Your task to perform on an android device: Open network settings Image 0: 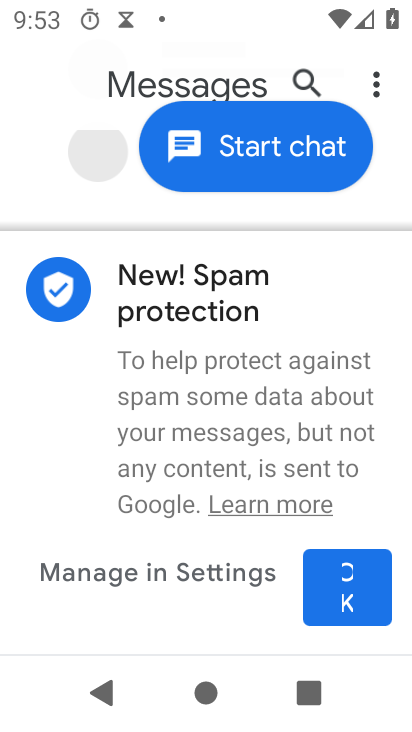
Step 0: press home button
Your task to perform on an android device: Open network settings Image 1: 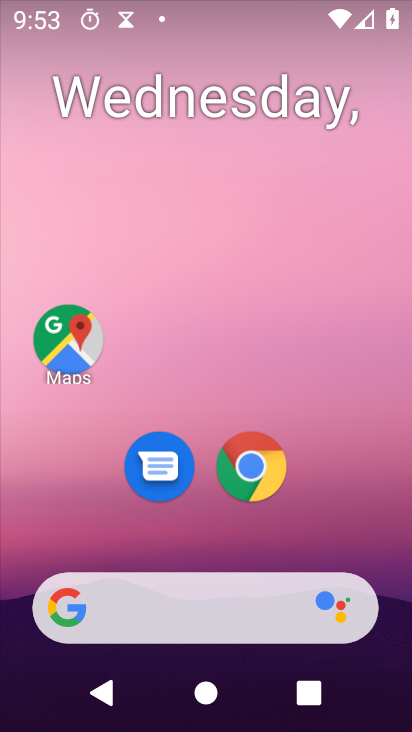
Step 1: drag from (243, 553) to (191, 44)
Your task to perform on an android device: Open network settings Image 2: 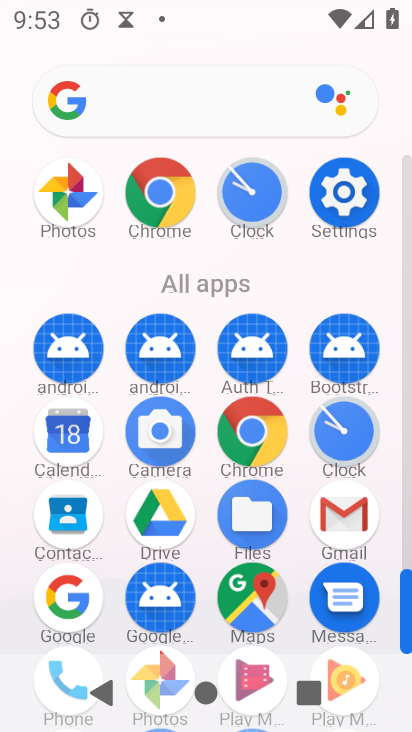
Step 2: click (340, 195)
Your task to perform on an android device: Open network settings Image 3: 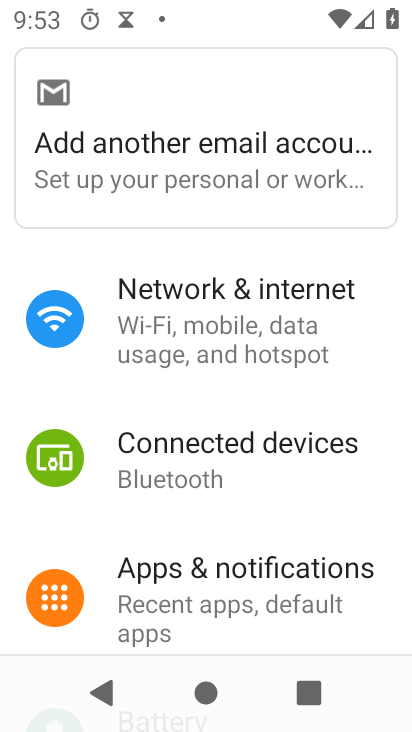
Step 3: click (234, 323)
Your task to perform on an android device: Open network settings Image 4: 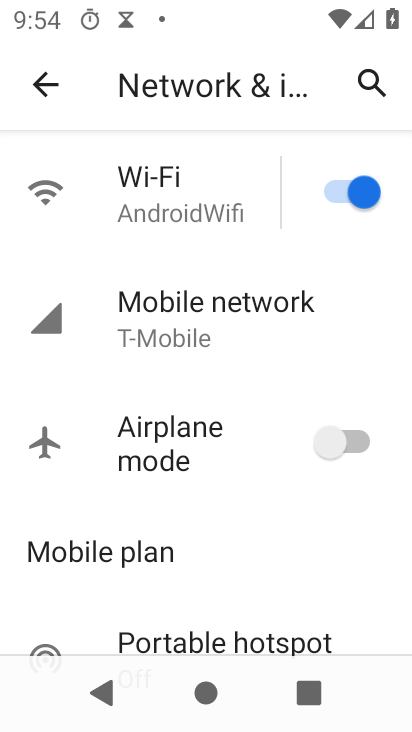
Step 4: click (189, 334)
Your task to perform on an android device: Open network settings Image 5: 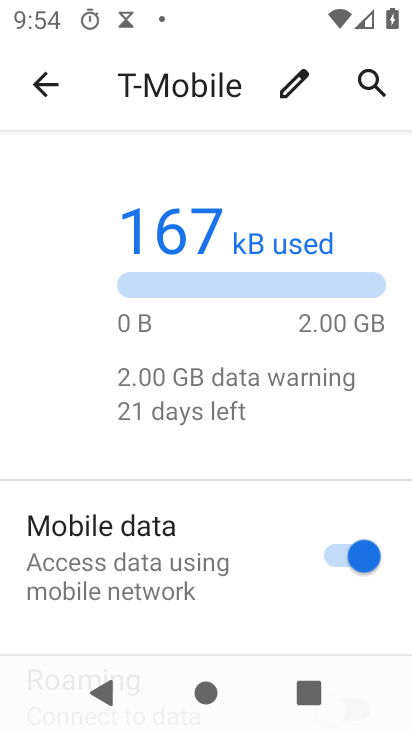
Step 5: task complete